Your task to perform on an android device: find which apps use the phone's location Image 0: 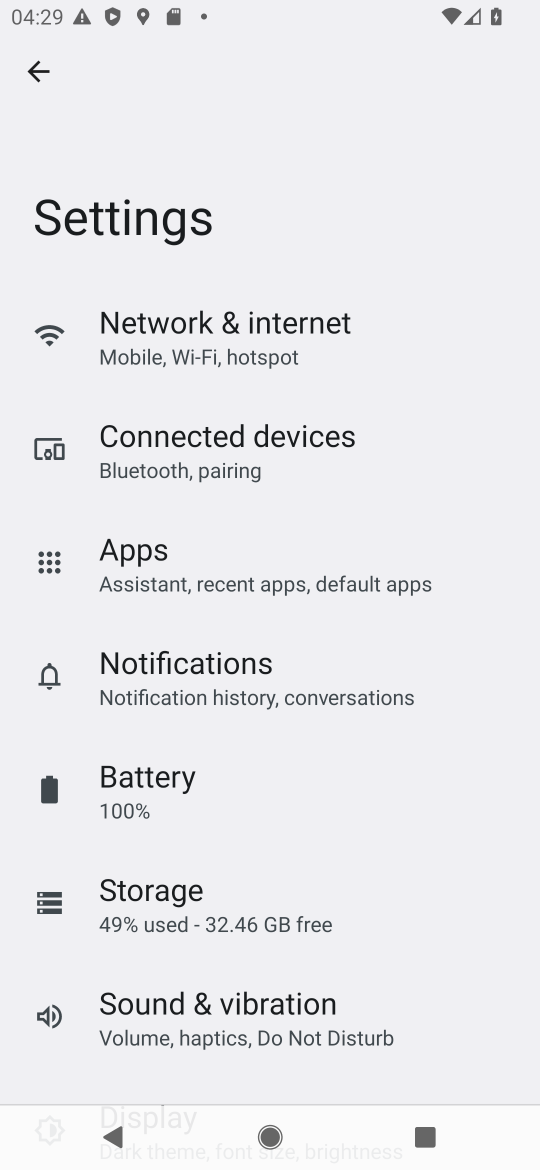
Step 0: press home button
Your task to perform on an android device: find which apps use the phone's location Image 1: 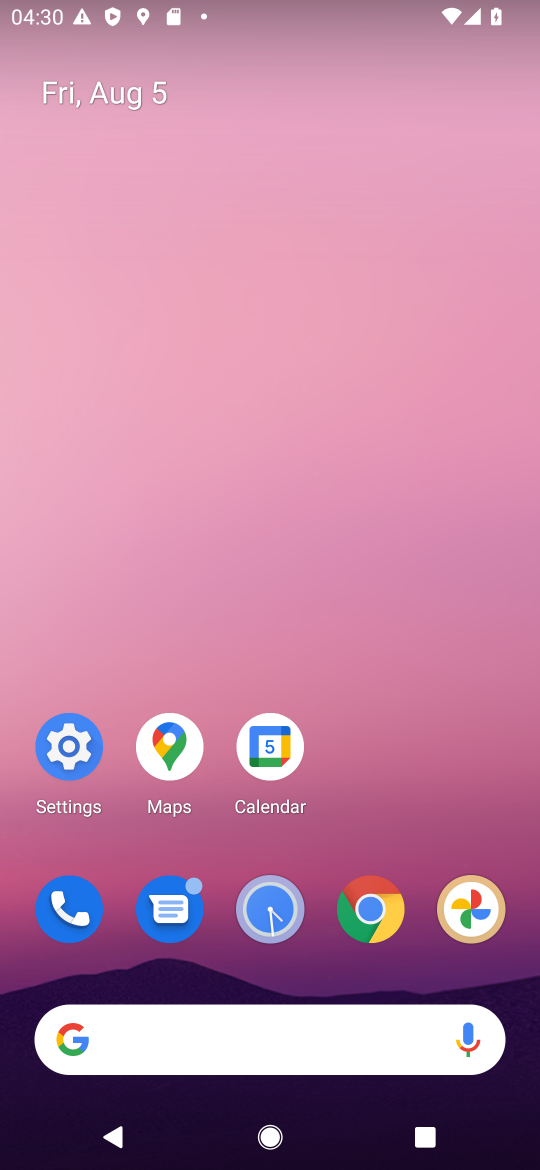
Step 1: click (67, 745)
Your task to perform on an android device: find which apps use the phone's location Image 2: 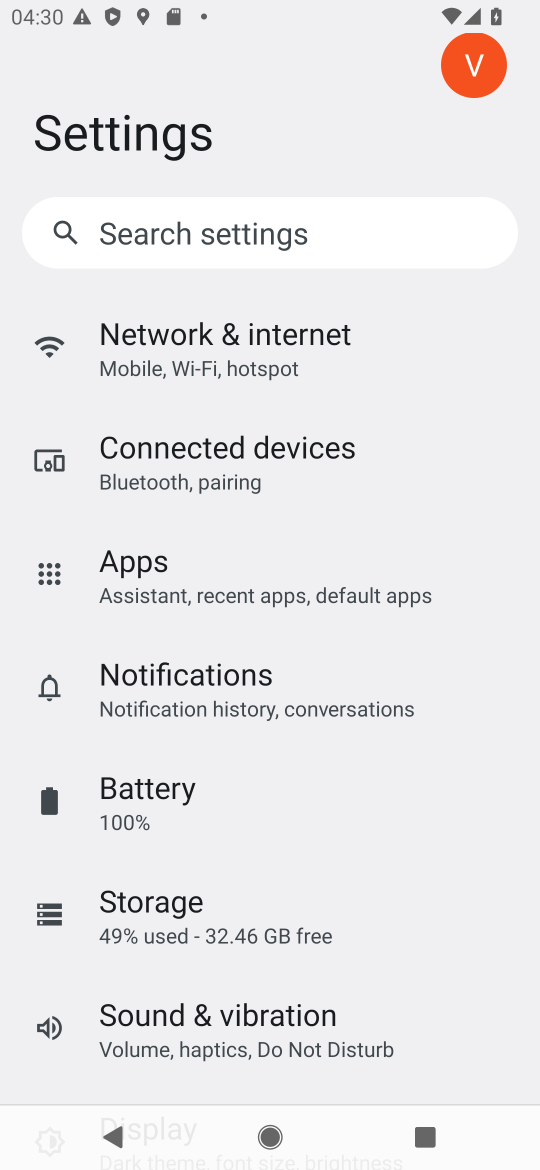
Step 2: drag from (411, 960) to (403, 531)
Your task to perform on an android device: find which apps use the phone's location Image 3: 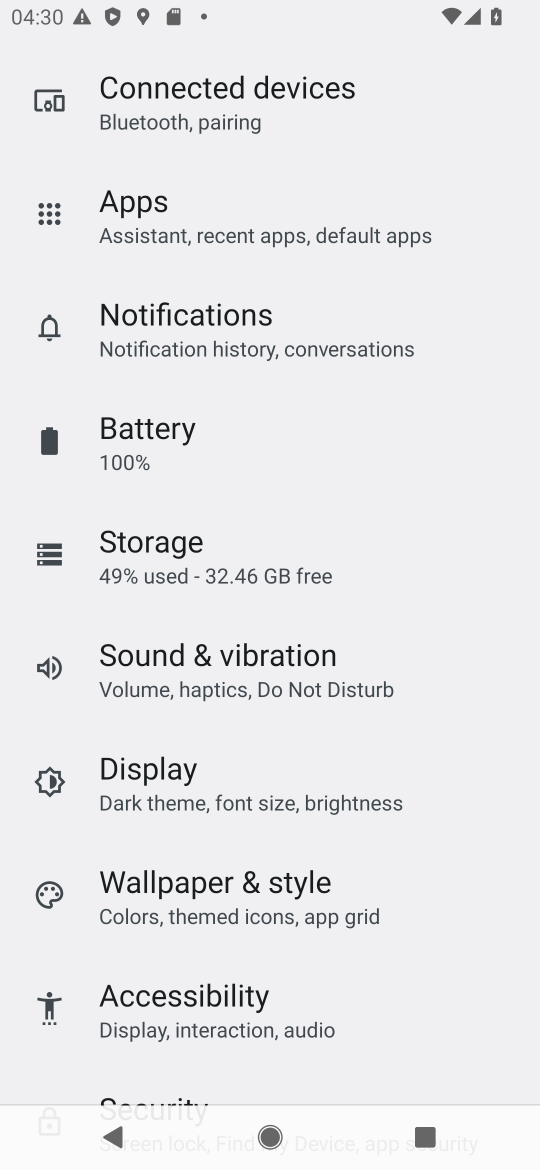
Step 3: drag from (375, 939) to (347, 341)
Your task to perform on an android device: find which apps use the phone's location Image 4: 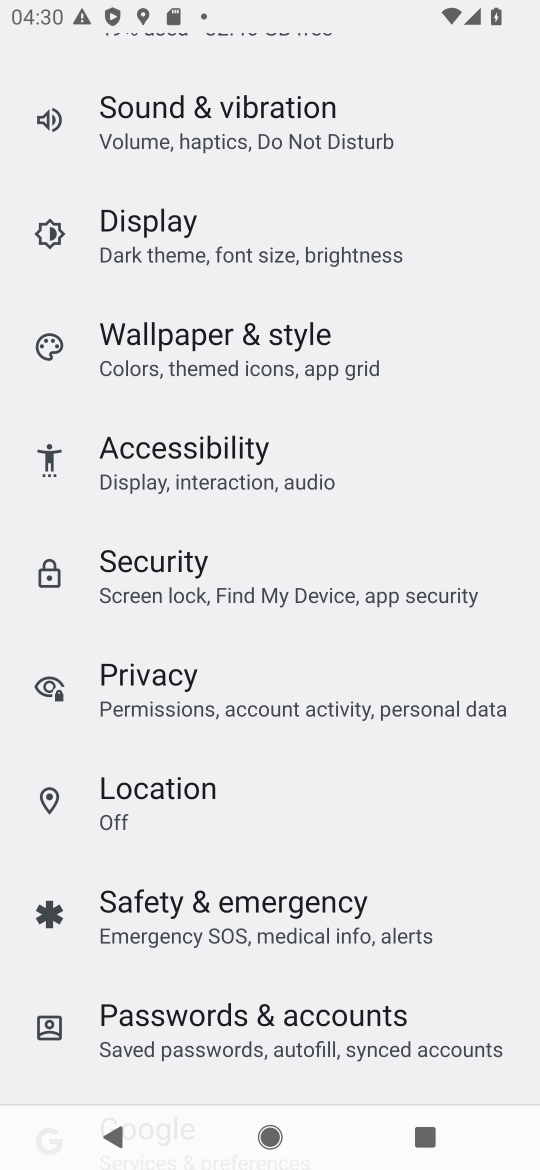
Step 4: click (154, 795)
Your task to perform on an android device: find which apps use the phone's location Image 5: 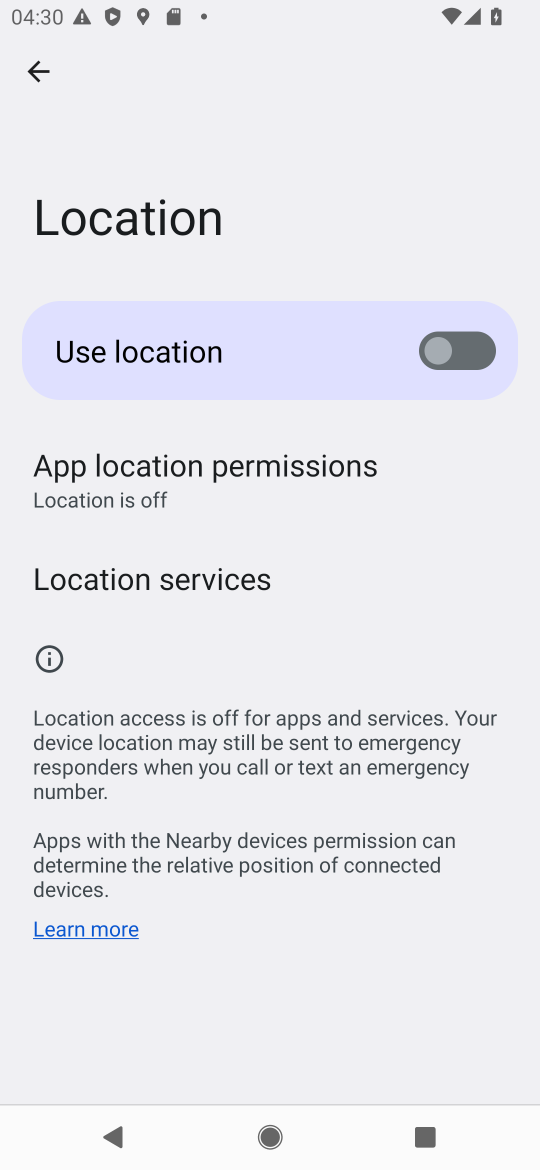
Step 5: task complete